Your task to perform on an android device: What's the weather going to be this weekend? Image 0: 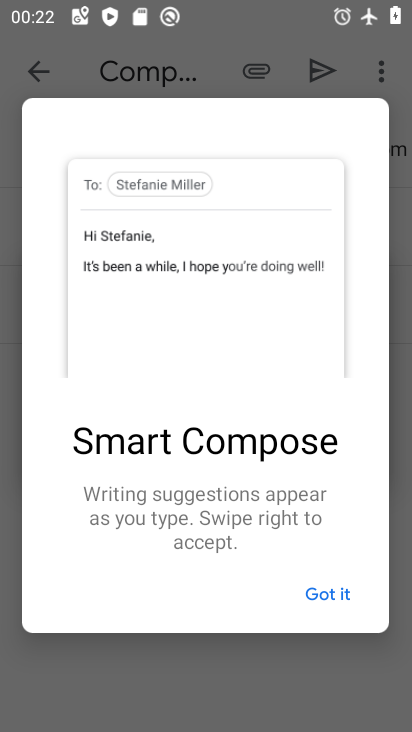
Step 0: press home button
Your task to perform on an android device: What's the weather going to be this weekend? Image 1: 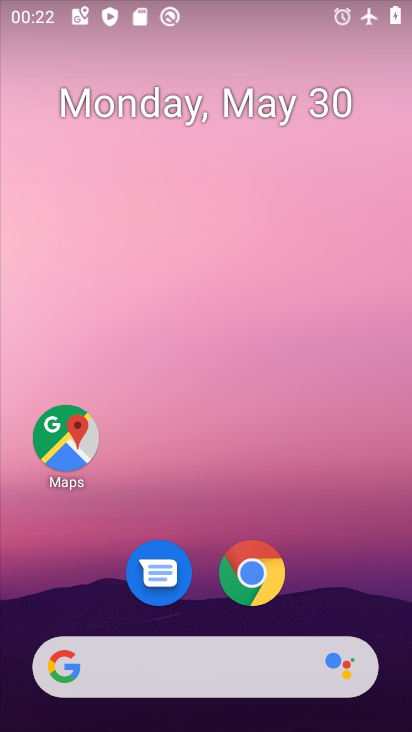
Step 1: drag from (306, 431) to (99, 17)
Your task to perform on an android device: What's the weather going to be this weekend? Image 2: 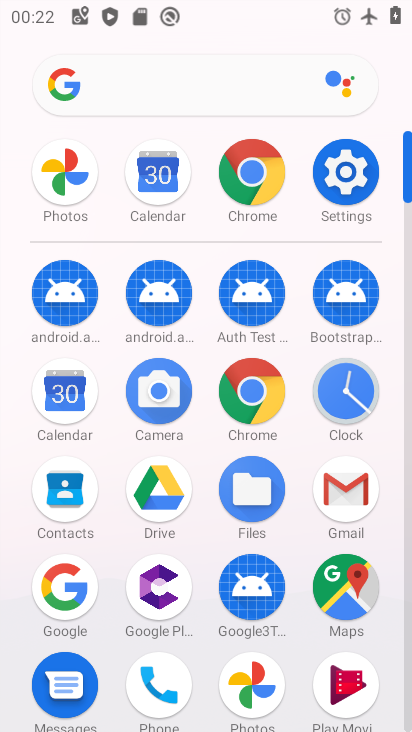
Step 2: click (68, 595)
Your task to perform on an android device: What's the weather going to be this weekend? Image 3: 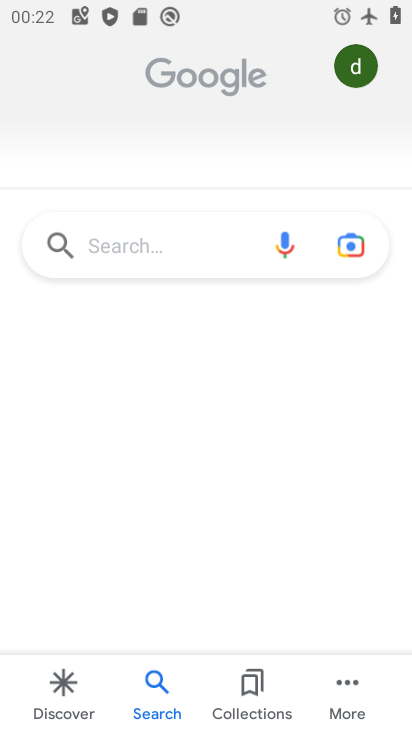
Step 3: click (341, 699)
Your task to perform on an android device: What's the weather going to be this weekend? Image 4: 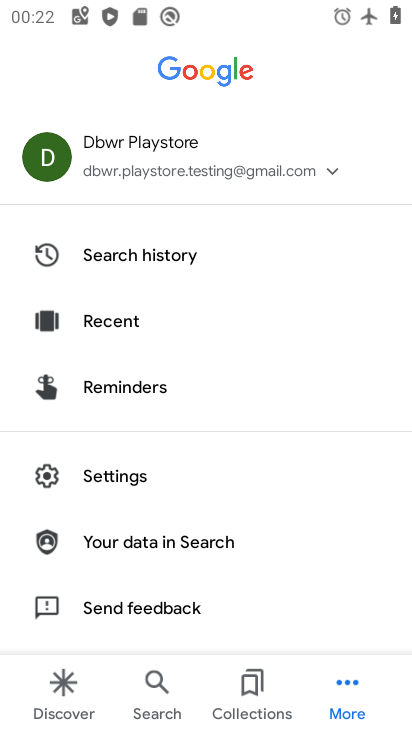
Step 4: press back button
Your task to perform on an android device: What's the weather going to be this weekend? Image 5: 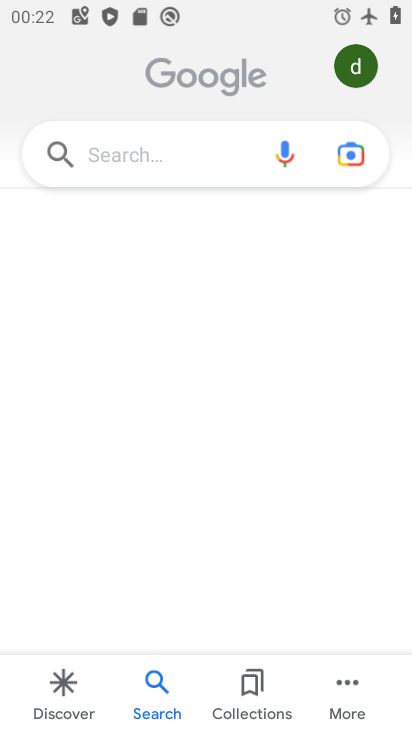
Step 5: click (57, 708)
Your task to perform on an android device: What's the weather going to be this weekend? Image 6: 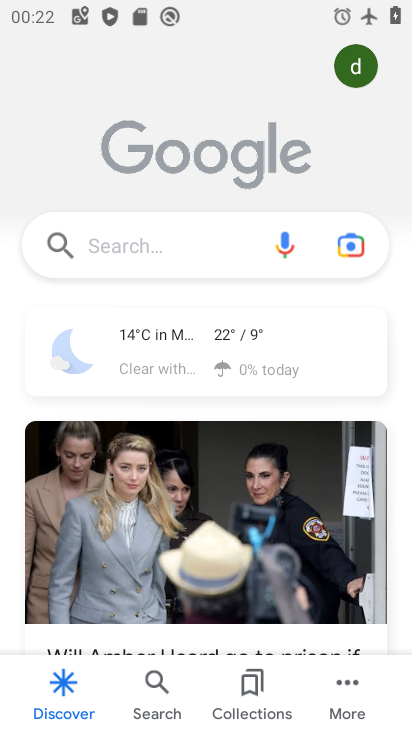
Step 6: click (254, 343)
Your task to perform on an android device: What's the weather going to be this weekend? Image 7: 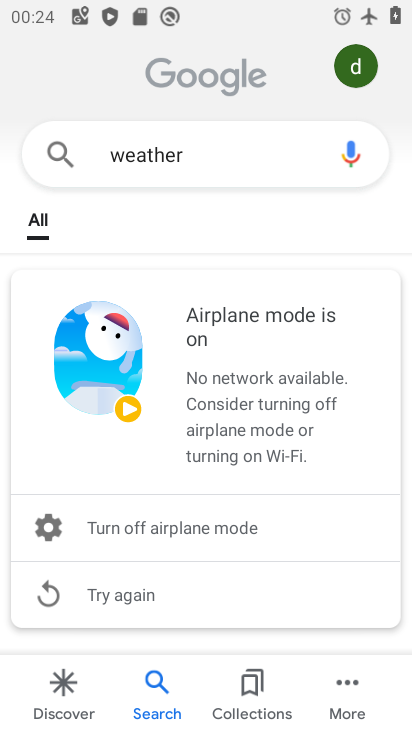
Step 7: task complete